Your task to perform on an android device: turn off smart reply in the gmail app Image 0: 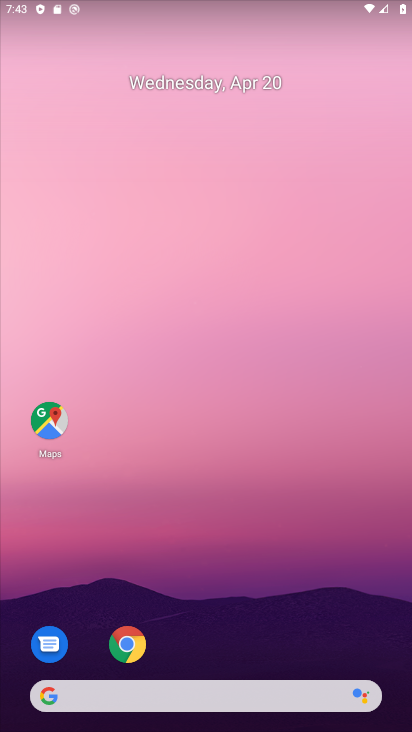
Step 0: drag from (352, 633) to (240, 0)
Your task to perform on an android device: turn off smart reply in the gmail app Image 1: 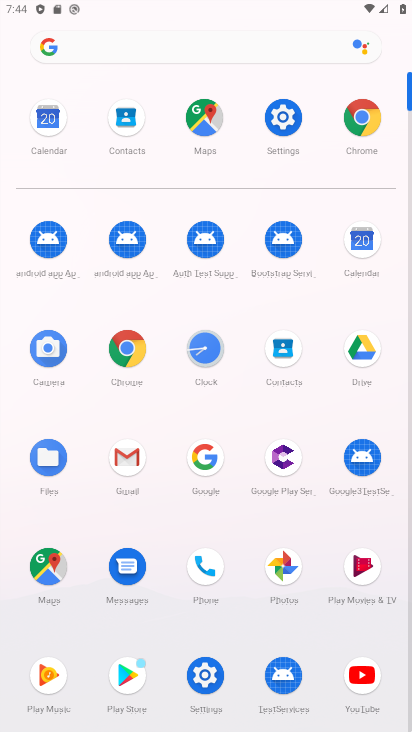
Step 1: click (126, 455)
Your task to perform on an android device: turn off smart reply in the gmail app Image 2: 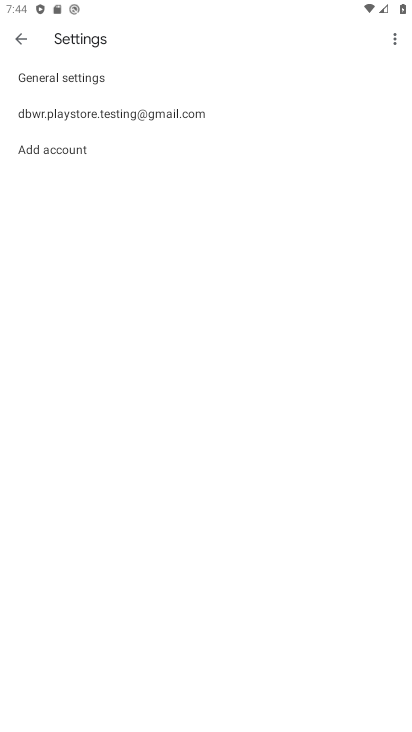
Step 2: click (144, 118)
Your task to perform on an android device: turn off smart reply in the gmail app Image 3: 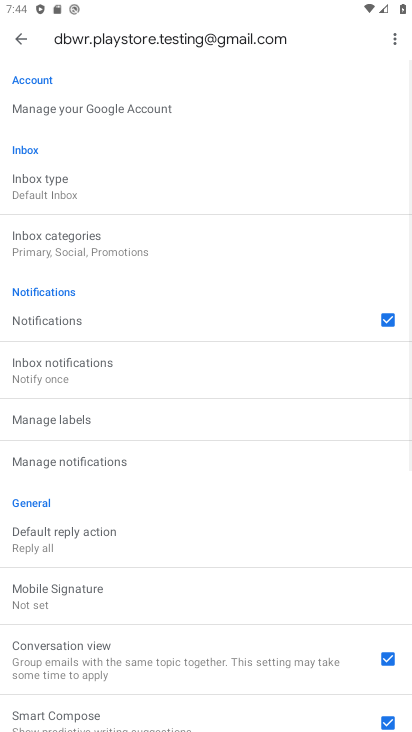
Step 3: drag from (160, 655) to (239, 150)
Your task to perform on an android device: turn off smart reply in the gmail app Image 4: 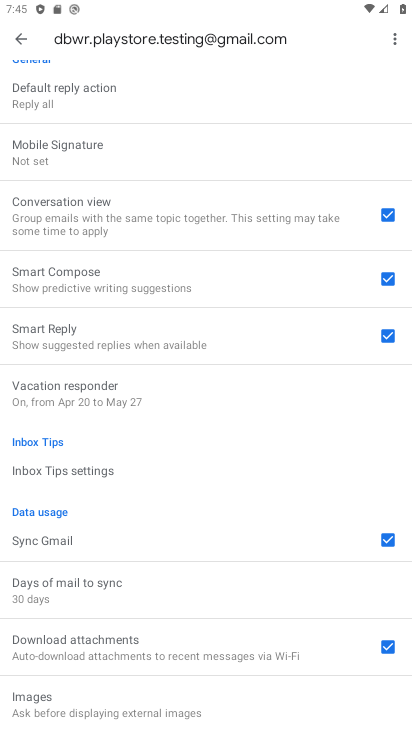
Step 4: click (257, 340)
Your task to perform on an android device: turn off smart reply in the gmail app Image 5: 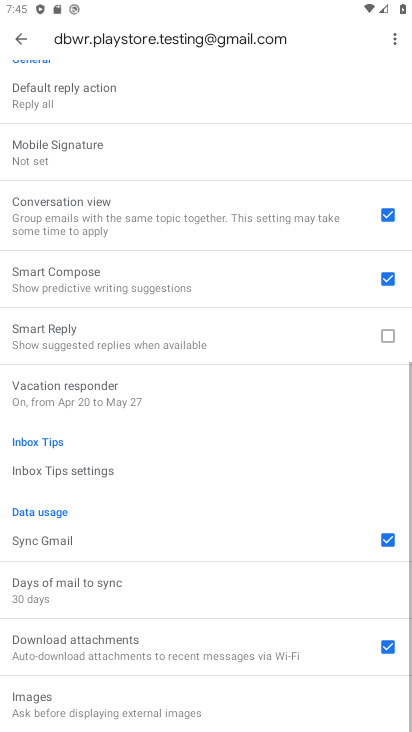
Step 5: task complete